Your task to perform on an android device: change keyboard looks Image 0: 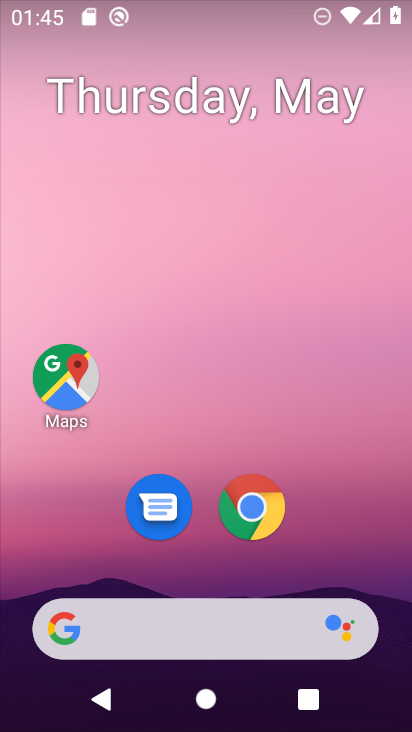
Step 0: drag from (354, 582) to (283, 98)
Your task to perform on an android device: change keyboard looks Image 1: 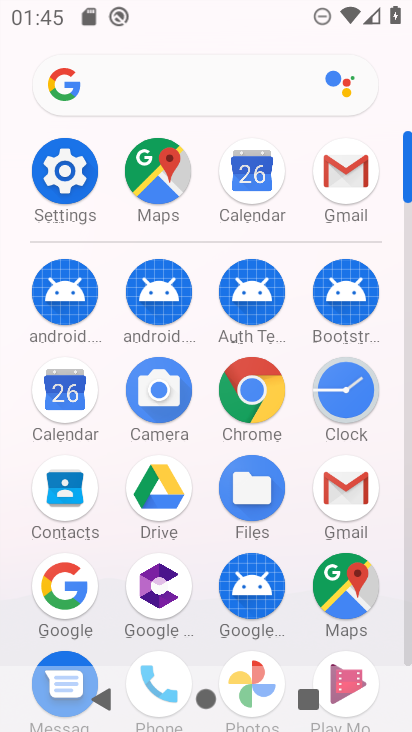
Step 1: click (83, 214)
Your task to perform on an android device: change keyboard looks Image 2: 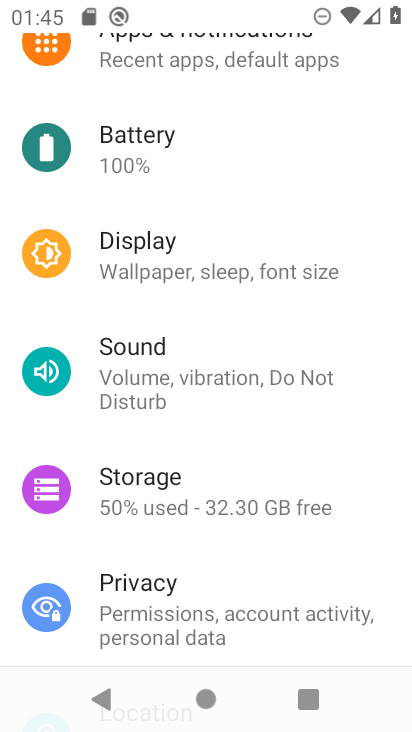
Step 2: drag from (265, 543) to (204, 100)
Your task to perform on an android device: change keyboard looks Image 3: 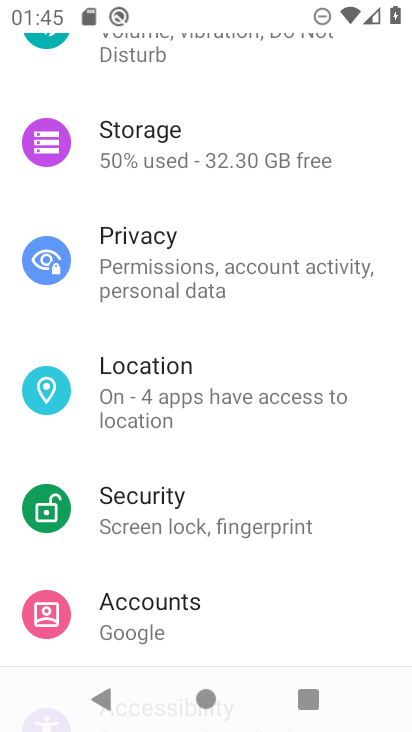
Step 3: drag from (230, 558) to (206, 169)
Your task to perform on an android device: change keyboard looks Image 4: 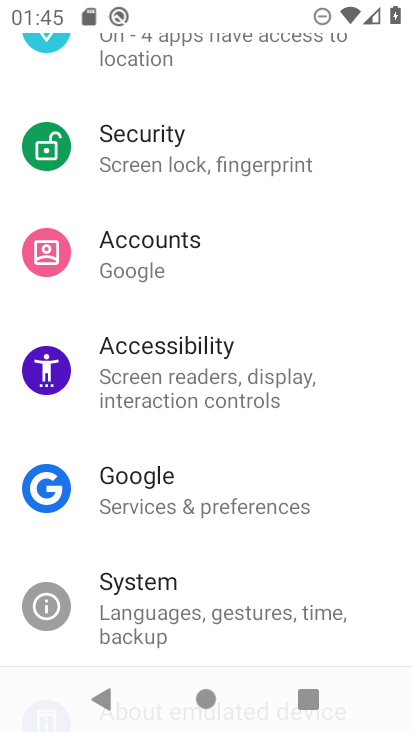
Step 4: drag from (254, 630) to (230, 448)
Your task to perform on an android device: change keyboard looks Image 5: 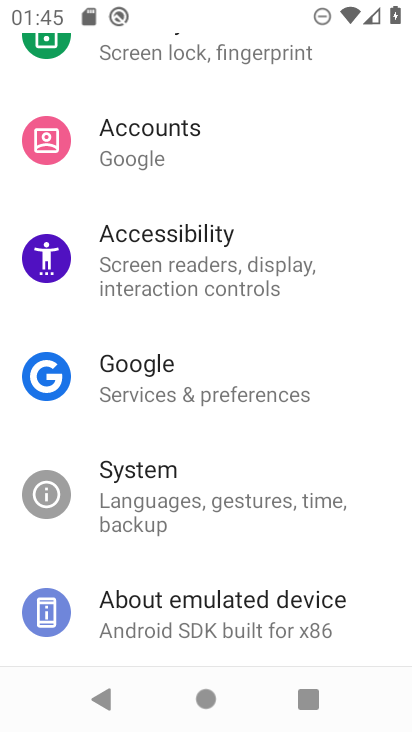
Step 5: click (244, 625)
Your task to perform on an android device: change keyboard looks Image 6: 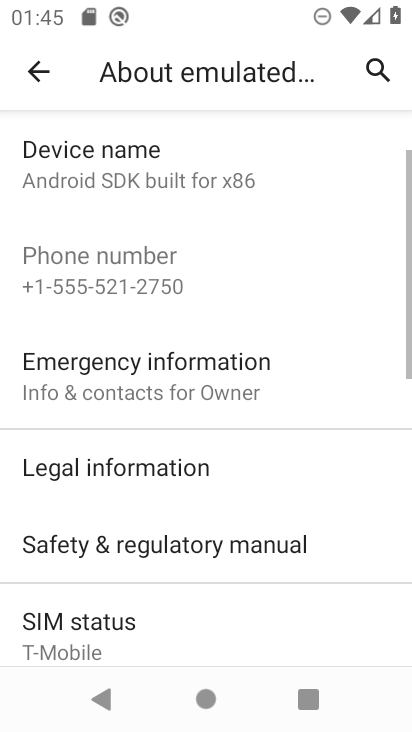
Step 6: task complete